Your task to perform on an android device: Check the news Image 0: 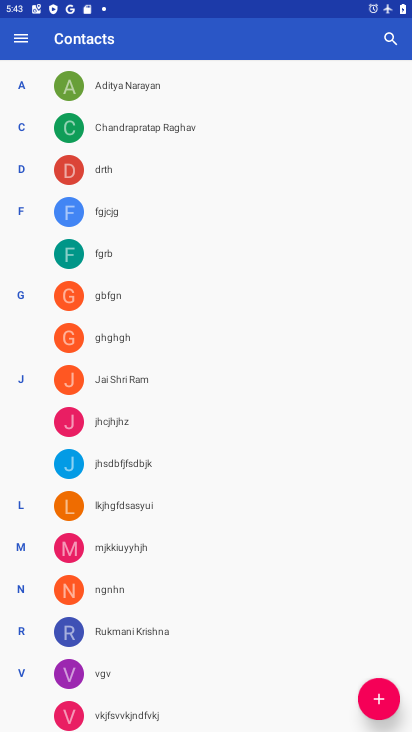
Step 0: press home button
Your task to perform on an android device: Check the news Image 1: 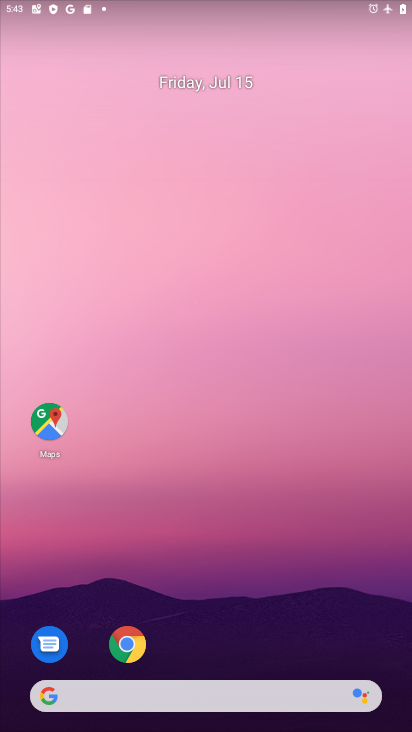
Step 1: click (119, 688)
Your task to perform on an android device: Check the news Image 2: 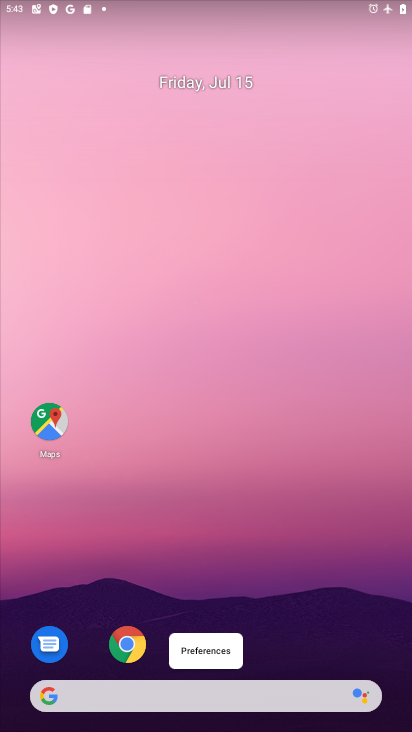
Step 2: click (154, 698)
Your task to perform on an android device: Check the news Image 3: 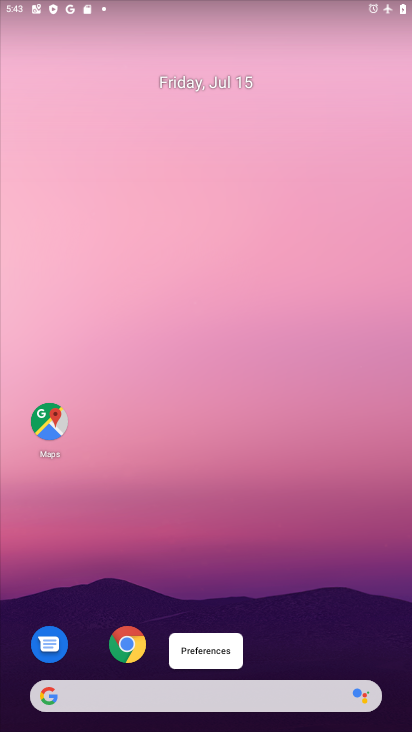
Step 3: click (365, 702)
Your task to perform on an android device: Check the news Image 4: 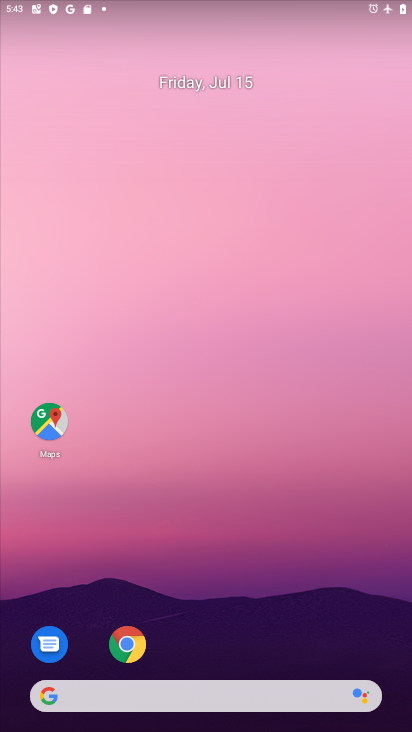
Step 4: click (54, 694)
Your task to perform on an android device: Check the news Image 5: 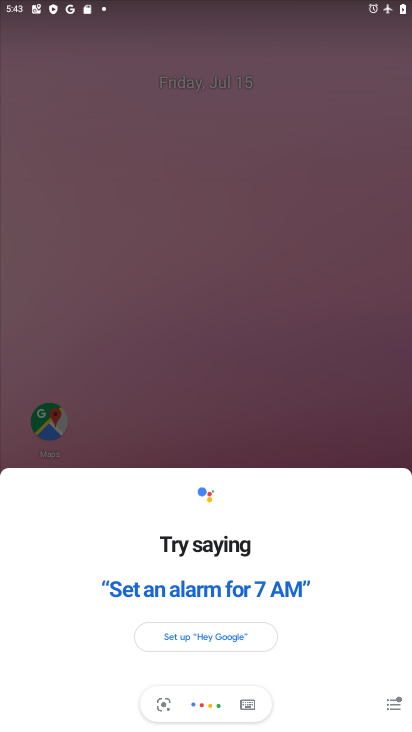
Step 5: click (93, 436)
Your task to perform on an android device: Check the news Image 6: 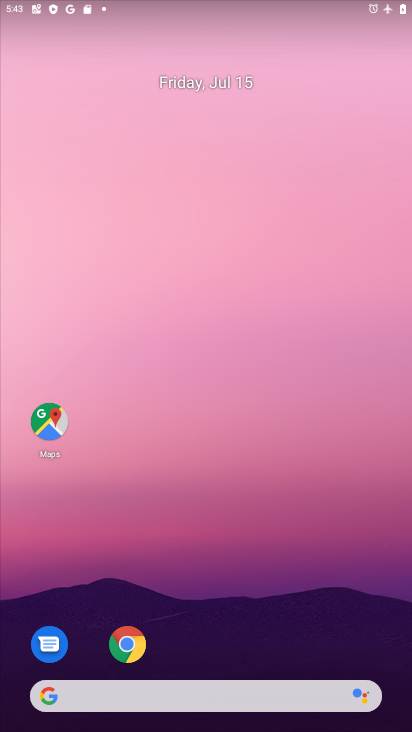
Step 6: click (119, 689)
Your task to perform on an android device: Check the news Image 7: 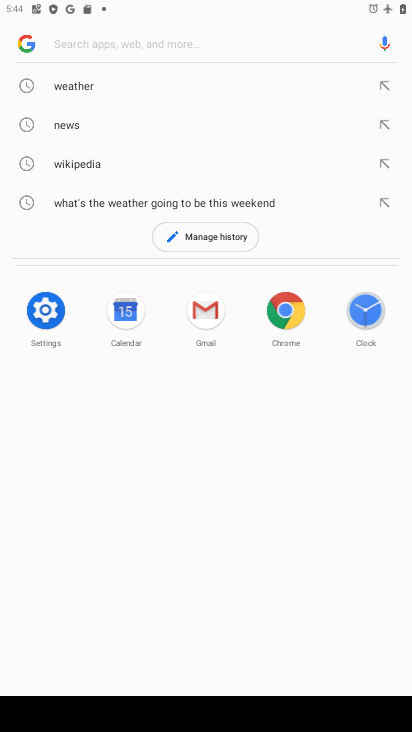
Step 7: click (61, 117)
Your task to perform on an android device: Check the news Image 8: 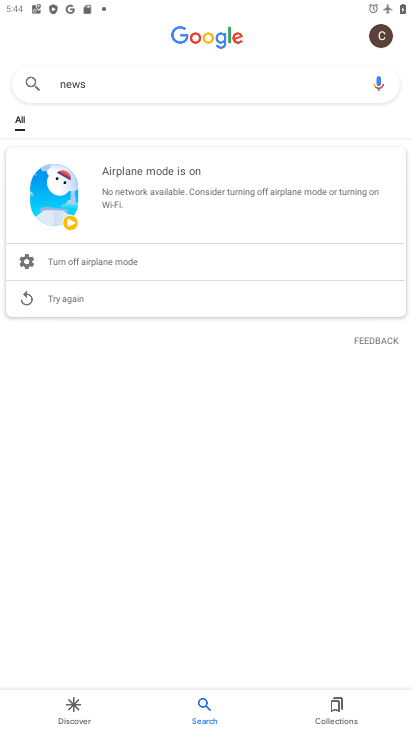
Step 8: task complete